Your task to perform on an android device: open a new tab in the chrome app Image 0: 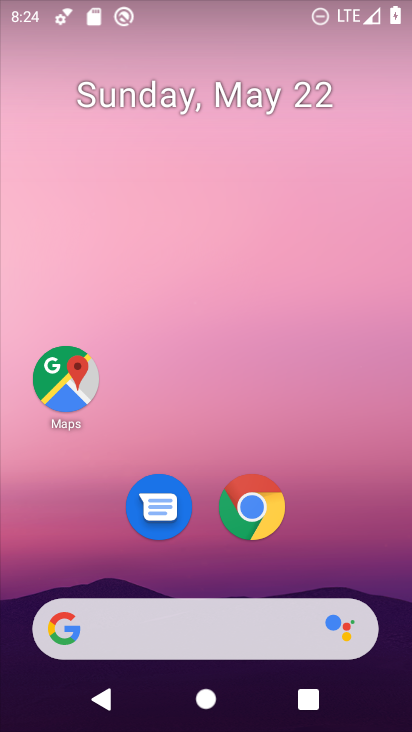
Step 0: click (266, 503)
Your task to perform on an android device: open a new tab in the chrome app Image 1: 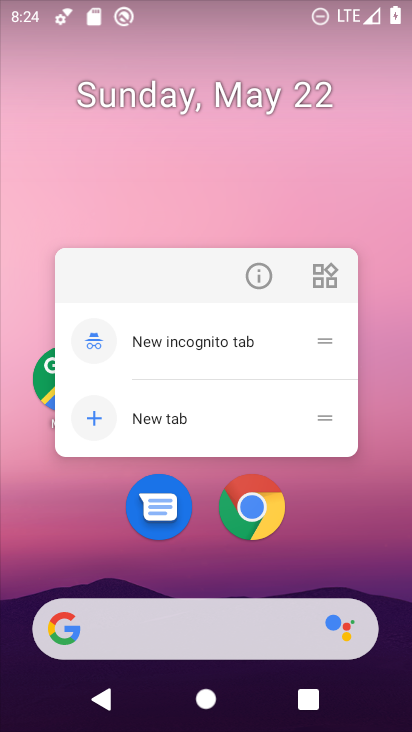
Step 1: click (266, 503)
Your task to perform on an android device: open a new tab in the chrome app Image 2: 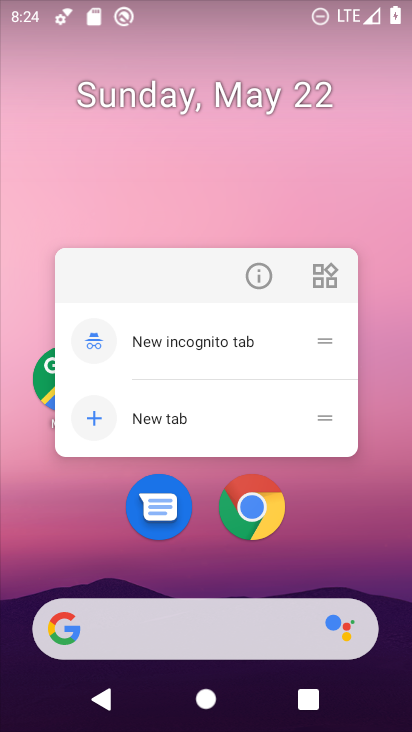
Step 2: click (266, 503)
Your task to perform on an android device: open a new tab in the chrome app Image 3: 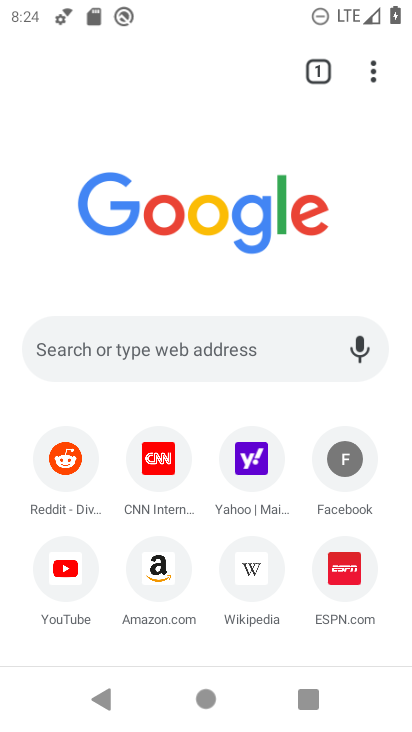
Step 3: click (373, 64)
Your task to perform on an android device: open a new tab in the chrome app Image 4: 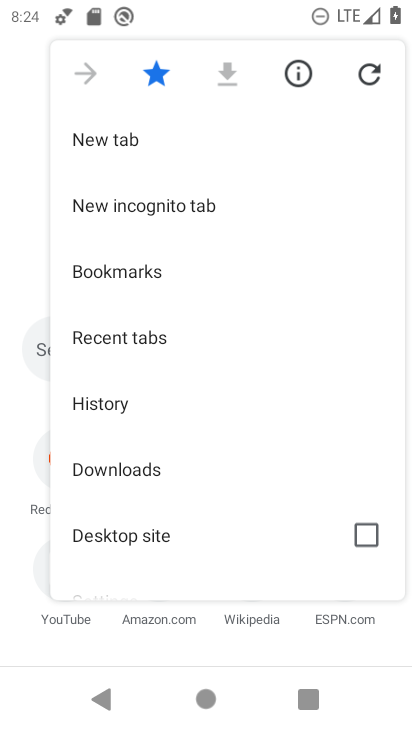
Step 4: click (131, 137)
Your task to perform on an android device: open a new tab in the chrome app Image 5: 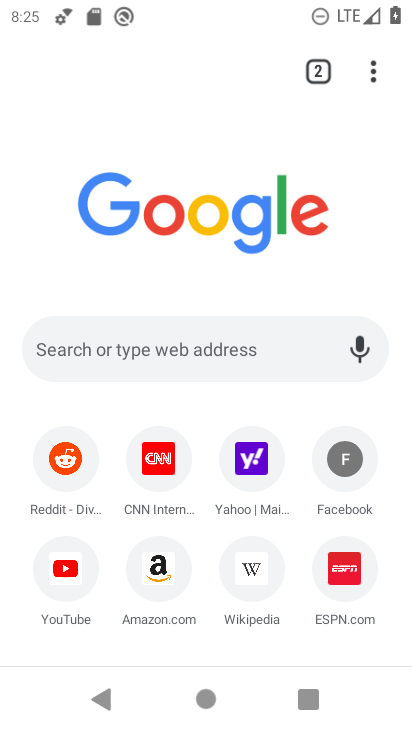
Step 5: task complete